Your task to perform on an android device: turn on javascript in the chrome app Image 0: 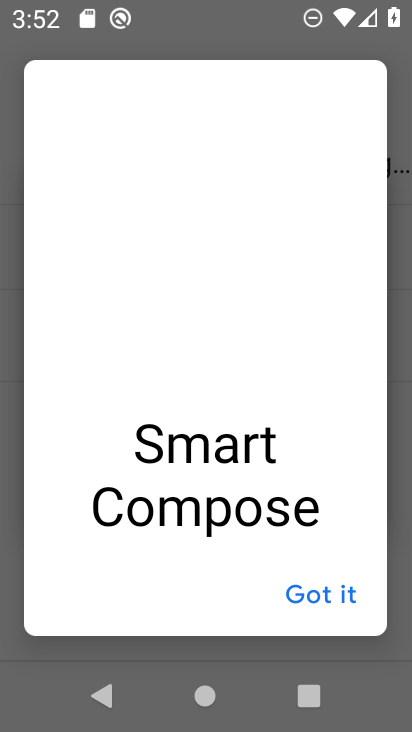
Step 0: press back button
Your task to perform on an android device: turn on javascript in the chrome app Image 1: 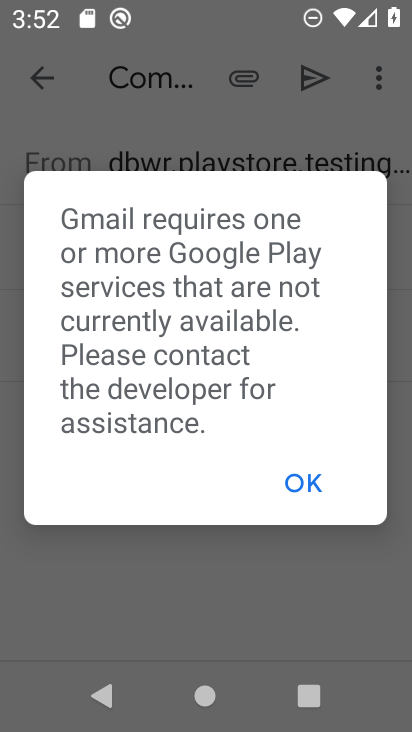
Step 1: press back button
Your task to perform on an android device: turn on javascript in the chrome app Image 2: 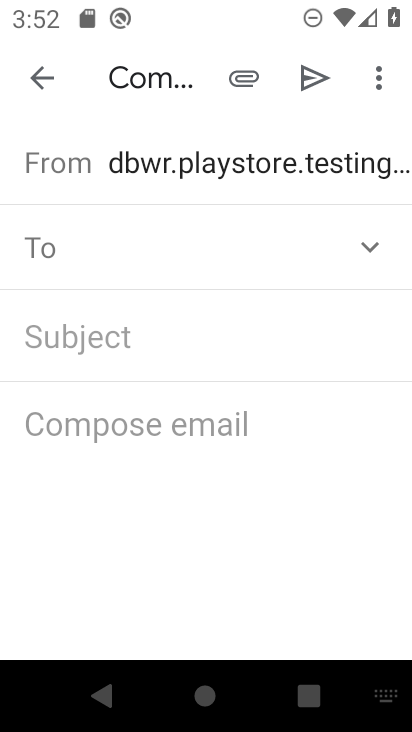
Step 2: press back button
Your task to perform on an android device: turn on javascript in the chrome app Image 3: 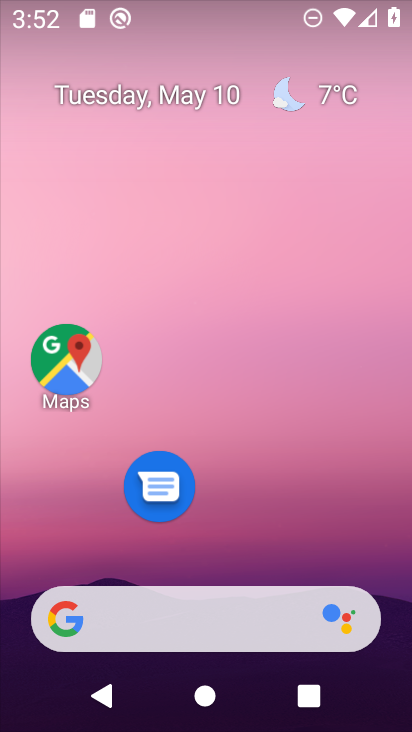
Step 3: drag from (249, 524) to (227, 45)
Your task to perform on an android device: turn on javascript in the chrome app Image 4: 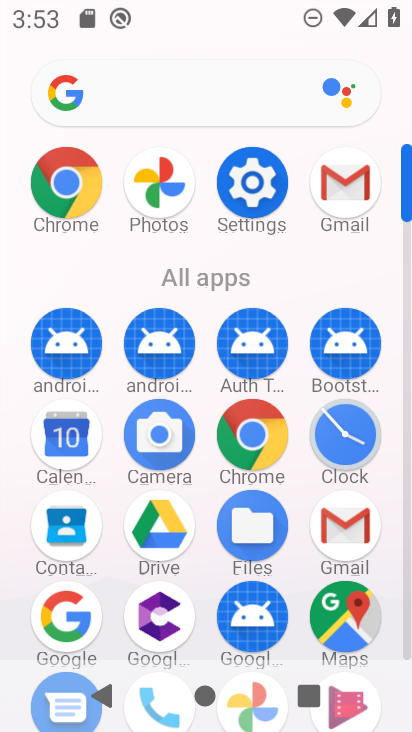
Step 4: click (60, 179)
Your task to perform on an android device: turn on javascript in the chrome app Image 5: 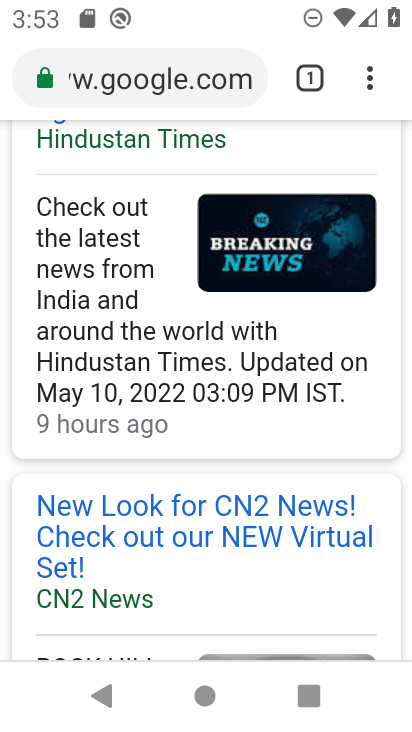
Step 5: drag from (103, 158) to (102, 447)
Your task to perform on an android device: turn on javascript in the chrome app Image 6: 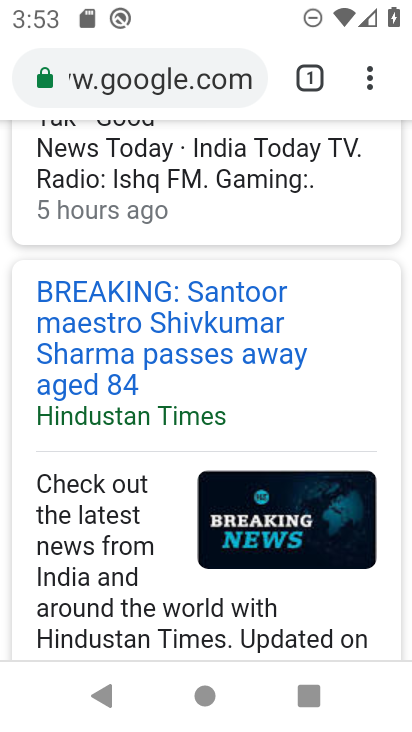
Step 6: drag from (163, 192) to (167, 511)
Your task to perform on an android device: turn on javascript in the chrome app Image 7: 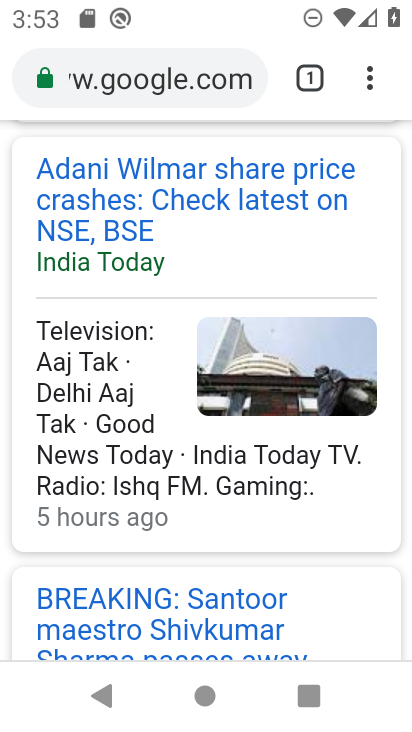
Step 7: drag from (371, 67) to (94, 542)
Your task to perform on an android device: turn on javascript in the chrome app Image 8: 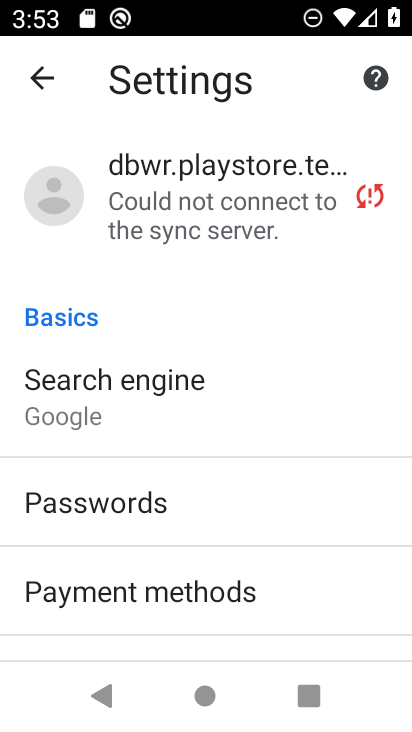
Step 8: drag from (207, 539) to (222, 135)
Your task to perform on an android device: turn on javascript in the chrome app Image 9: 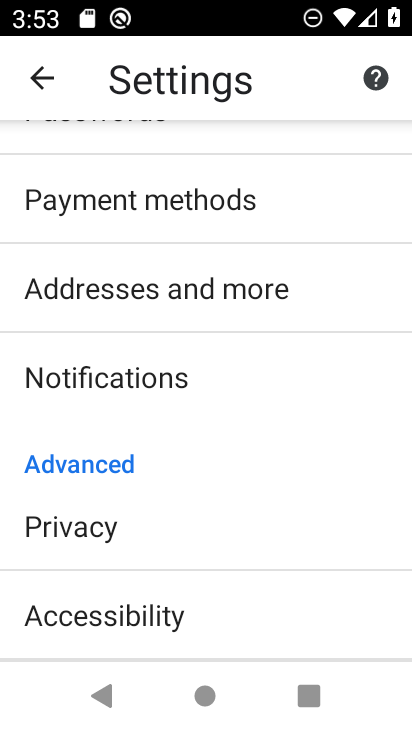
Step 9: drag from (204, 608) to (215, 169)
Your task to perform on an android device: turn on javascript in the chrome app Image 10: 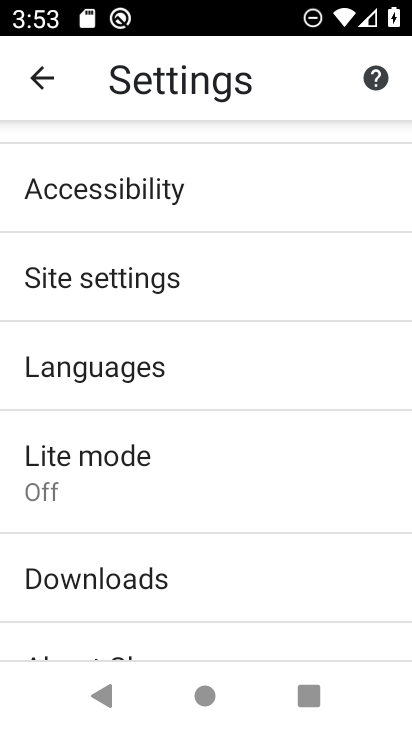
Step 10: click (161, 270)
Your task to perform on an android device: turn on javascript in the chrome app Image 11: 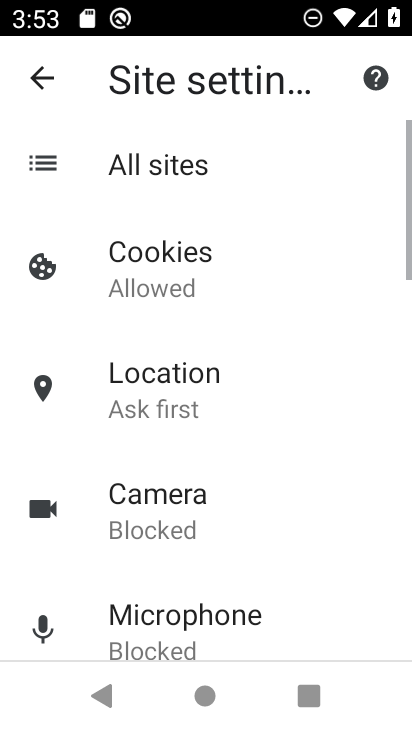
Step 11: drag from (248, 568) to (259, 158)
Your task to perform on an android device: turn on javascript in the chrome app Image 12: 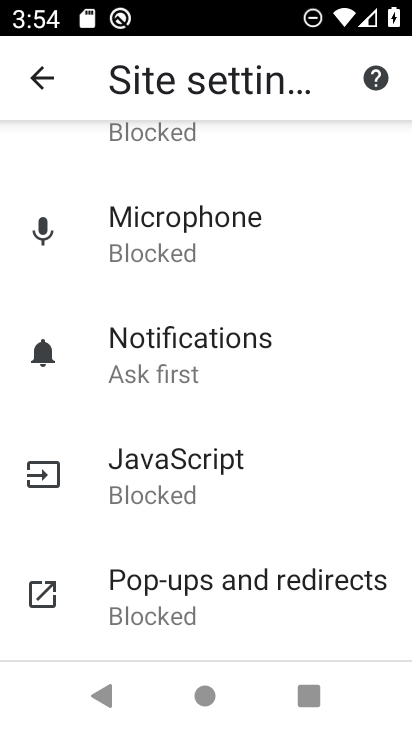
Step 12: click (232, 462)
Your task to perform on an android device: turn on javascript in the chrome app Image 13: 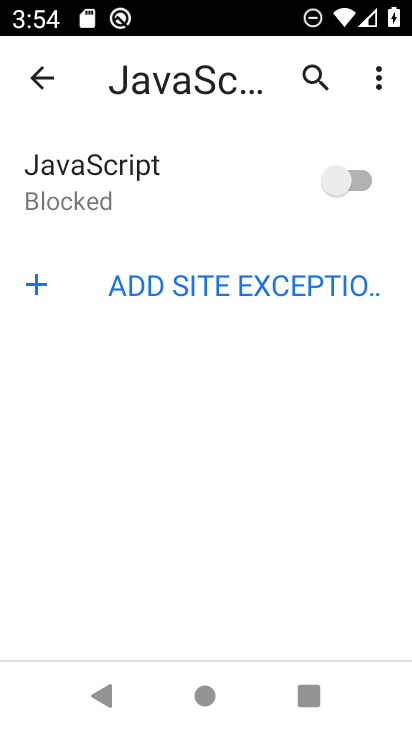
Step 13: click (325, 178)
Your task to perform on an android device: turn on javascript in the chrome app Image 14: 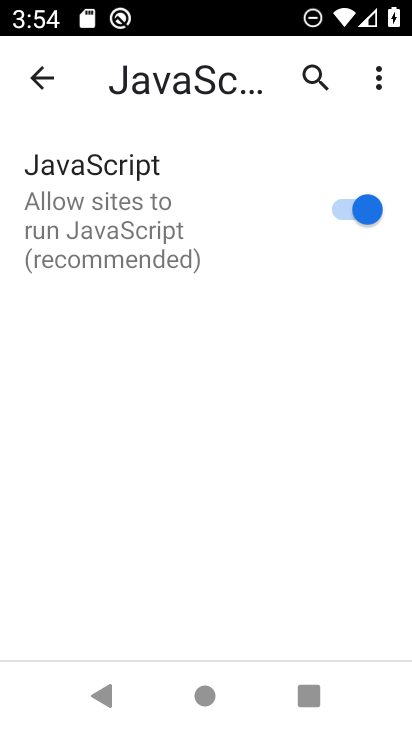
Step 14: task complete